Your task to perform on an android device: Go to ESPN.com Image 0: 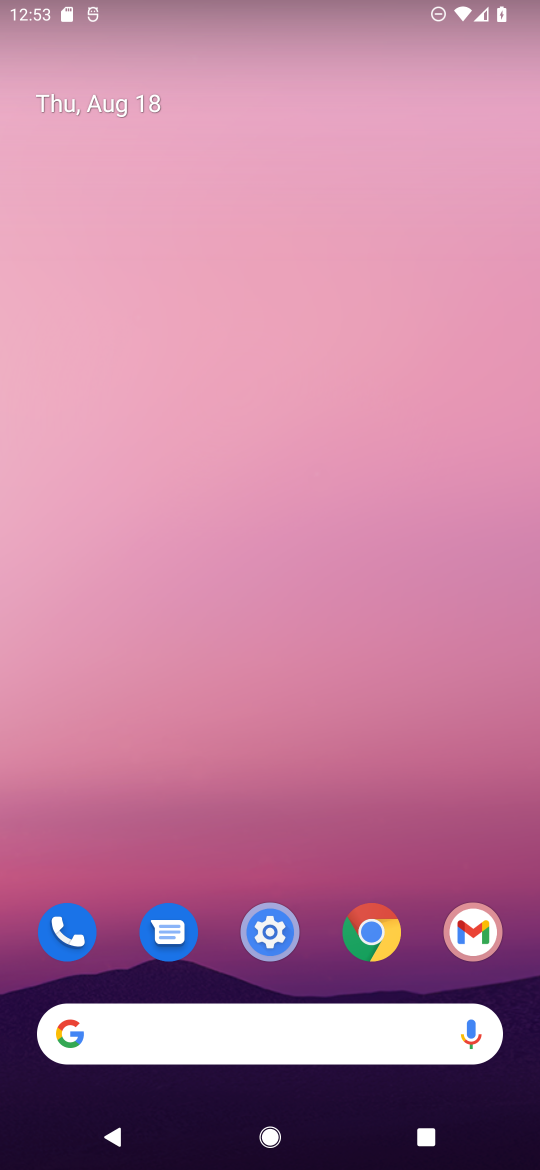
Step 0: click (365, 924)
Your task to perform on an android device: Go to ESPN.com Image 1: 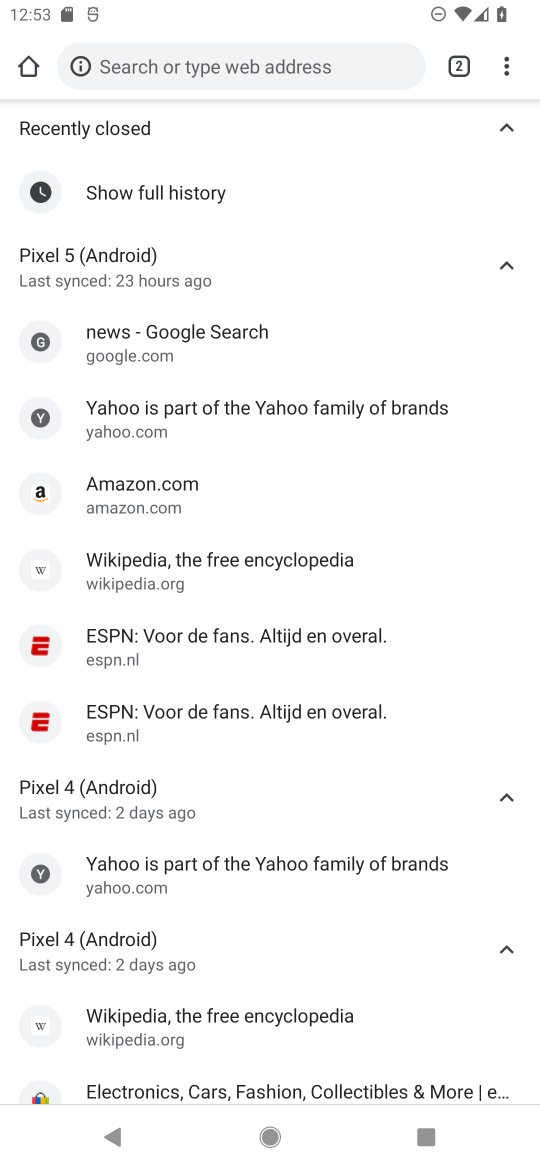
Step 1: click (503, 58)
Your task to perform on an android device: Go to ESPN.com Image 2: 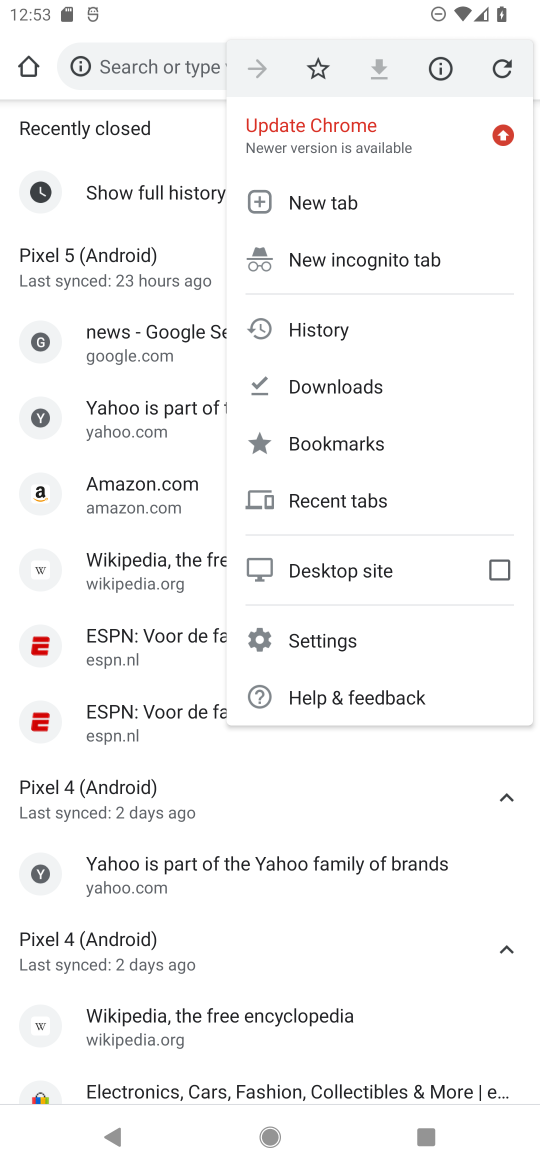
Step 2: click (318, 196)
Your task to perform on an android device: Go to ESPN.com Image 3: 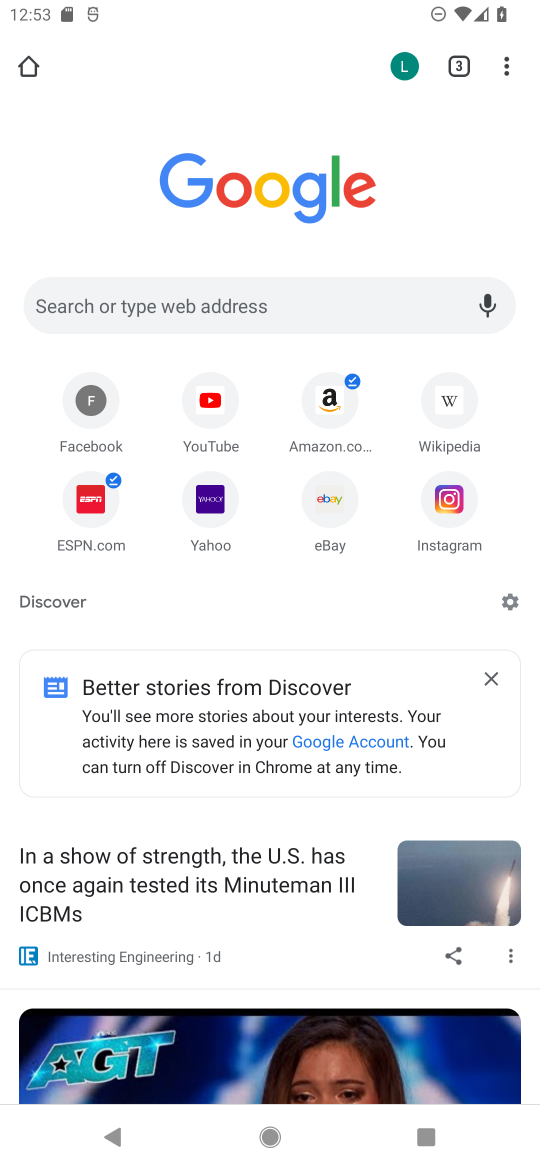
Step 3: click (83, 492)
Your task to perform on an android device: Go to ESPN.com Image 4: 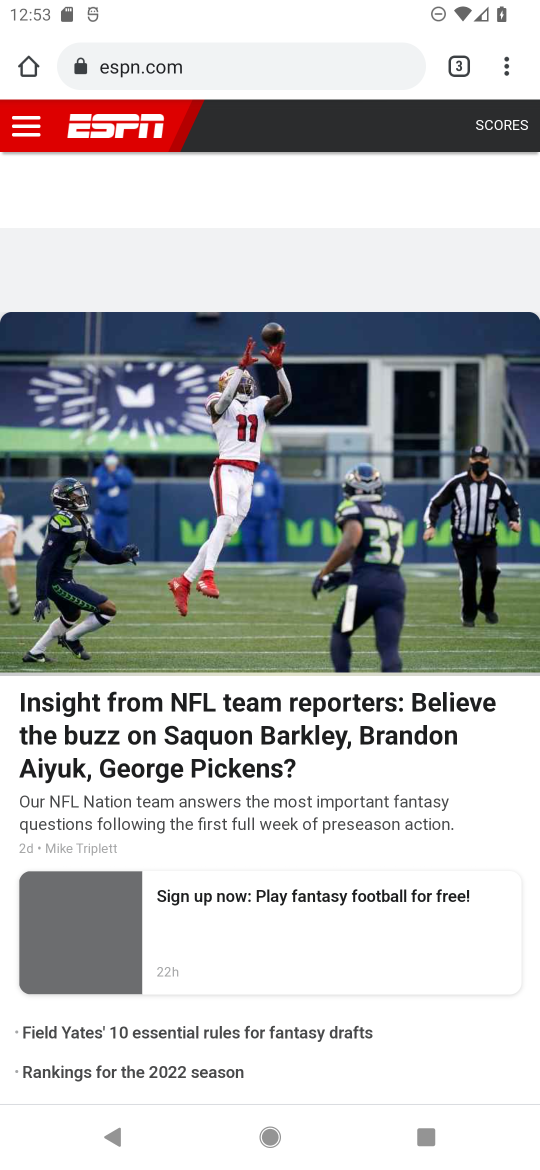
Step 4: task complete